Your task to perform on an android device: Go to Yahoo.com Image 0: 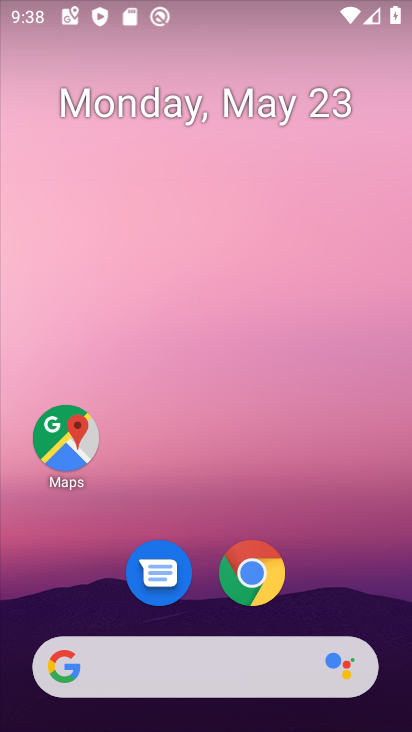
Step 0: drag from (384, 608) to (382, 266)
Your task to perform on an android device: Go to Yahoo.com Image 1: 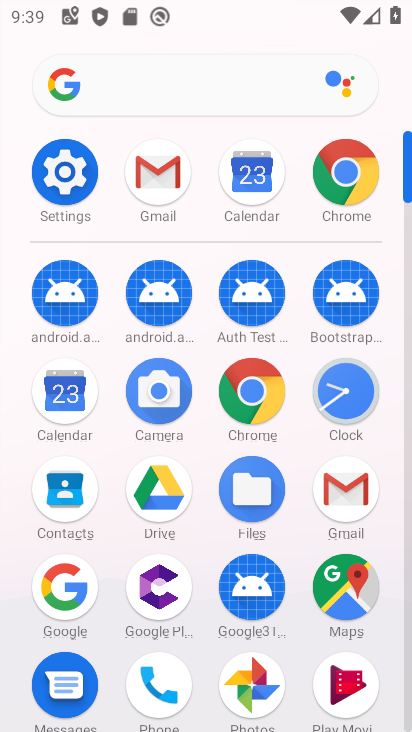
Step 1: click (281, 411)
Your task to perform on an android device: Go to Yahoo.com Image 2: 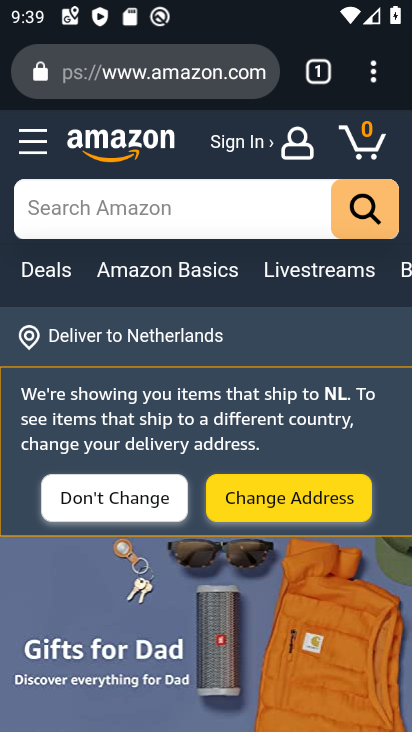
Step 2: press back button
Your task to perform on an android device: Go to Yahoo.com Image 3: 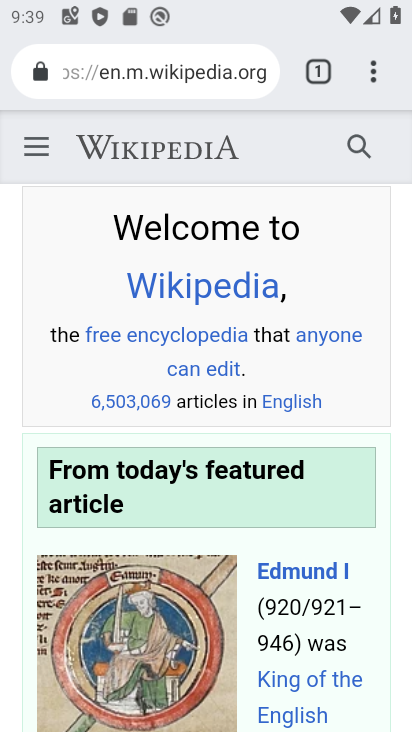
Step 3: press back button
Your task to perform on an android device: Go to Yahoo.com Image 4: 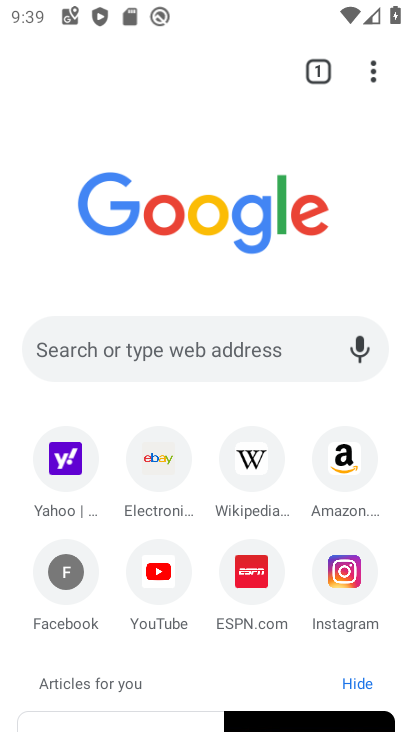
Step 4: click (72, 485)
Your task to perform on an android device: Go to Yahoo.com Image 5: 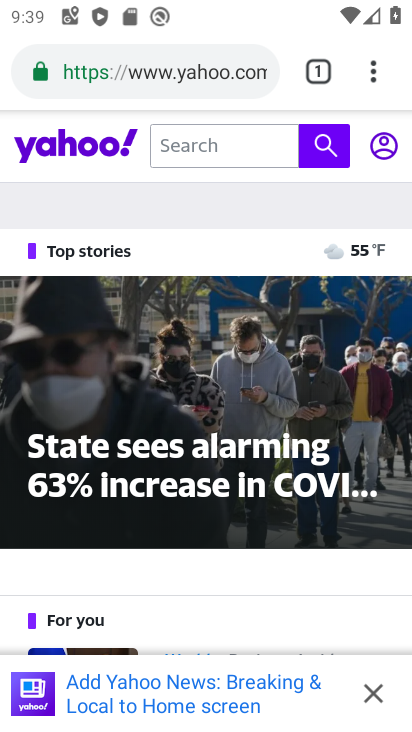
Step 5: task complete